Your task to perform on an android device: open a bookmark in the chrome app Image 0: 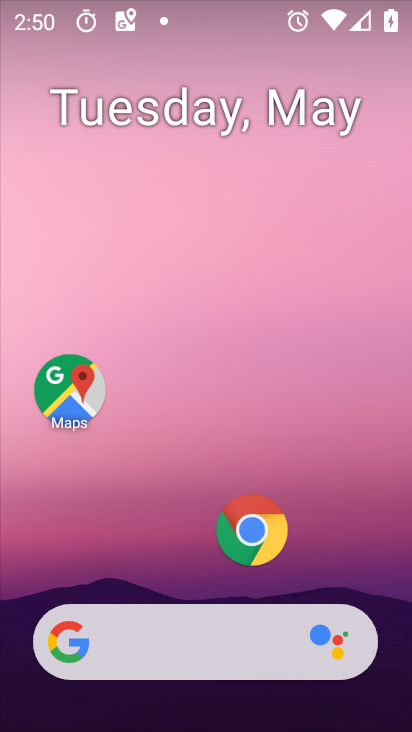
Step 0: click (241, 525)
Your task to perform on an android device: open a bookmark in the chrome app Image 1: 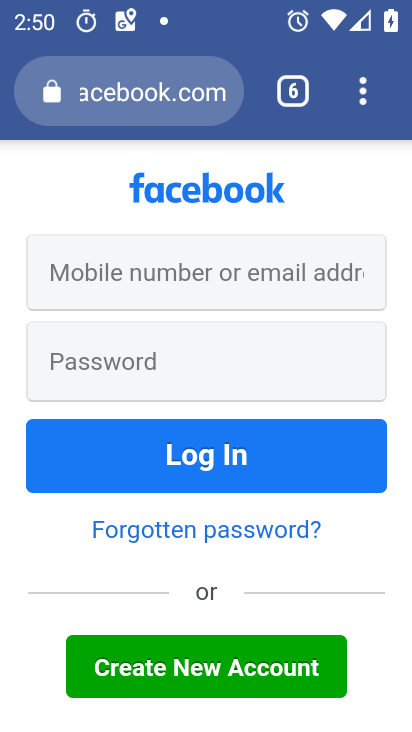
Step 1: click (351, 94)
Your task to perform on an android device: open a bookmark in the chrome app Image 2: 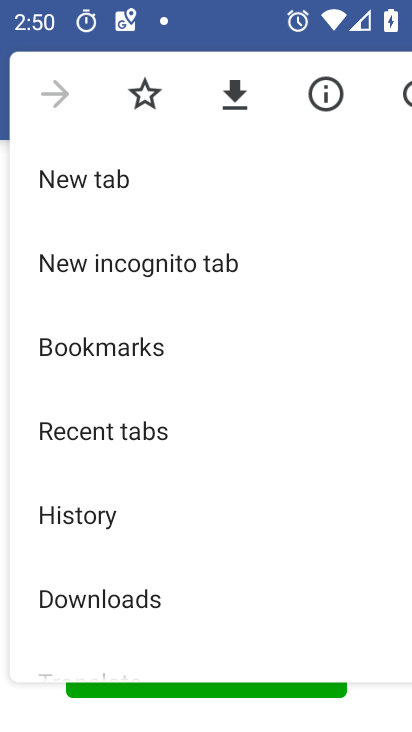
Step 2: click (66, 347)
Your task to perform on an android device: open a bookmark in the chrome app Image 3: 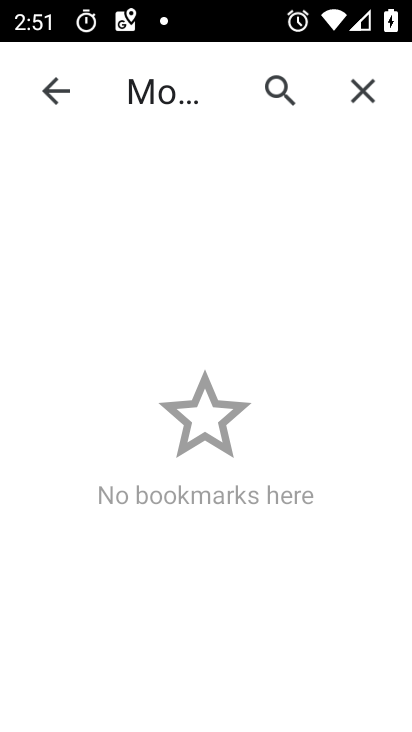
Step 3: task complete